Your task to perform on an android device: turn off smart reply in the gmail app Image 0: 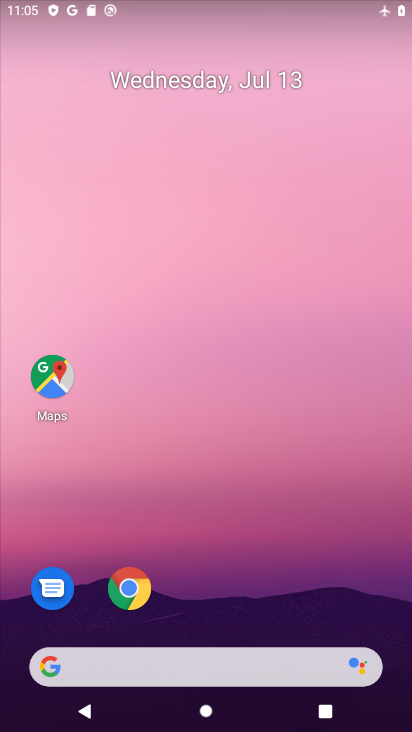
Step 0: drag from (223, 587) to (241, 181)
Your task to perform on an android device: turn off smart reply in the gmail app Image 1: 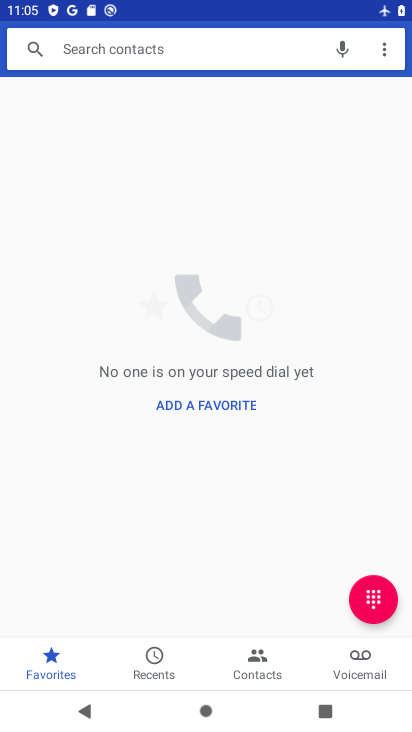
Step 1: press home button
Your task to perform on an android device: turn off smart reply in the gmail app Image 2: 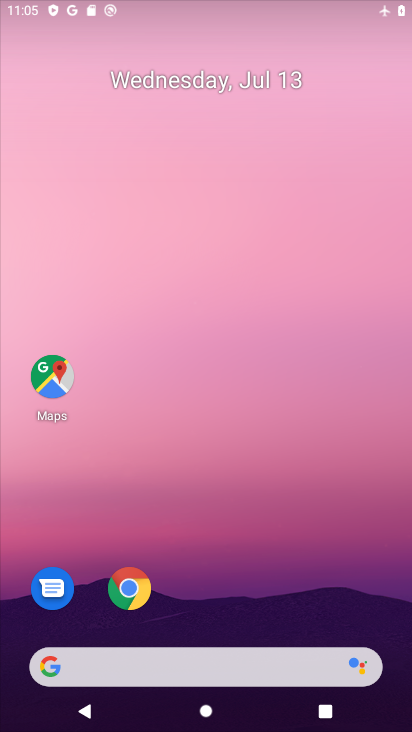
Step 2: drag from (256, 607) to (281, 0)
Your task to perform on an android device: turn off smart reply in the gmail app Image 3: 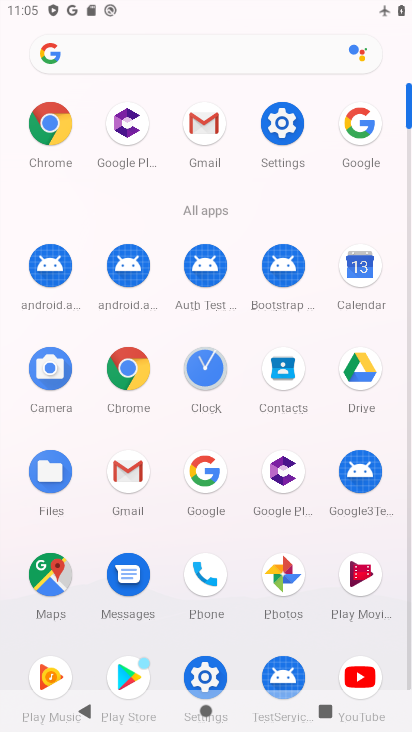
Step 3: click (199, 124)
Your task to perform on an android device: turn off smart reply in the gmail app Image 4: 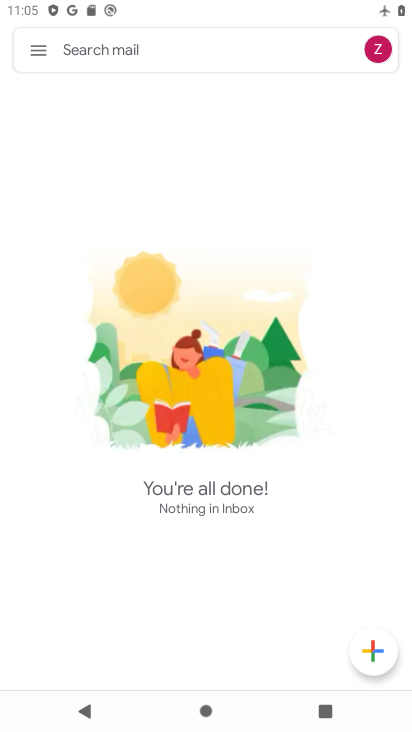
Step 4: click (40, 54)
Your task to perform on an android device: turn off smart reply in the gmail app Image 5: 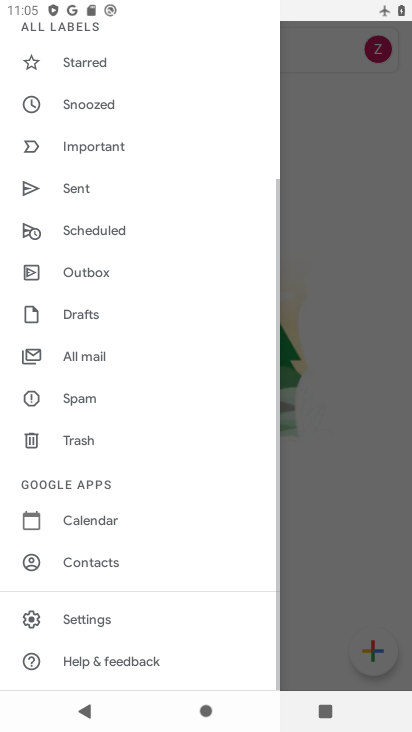
Step 5: click (88, 617)
Your task to perform on an android device: turn off smart reply in the gmail app Image 6: 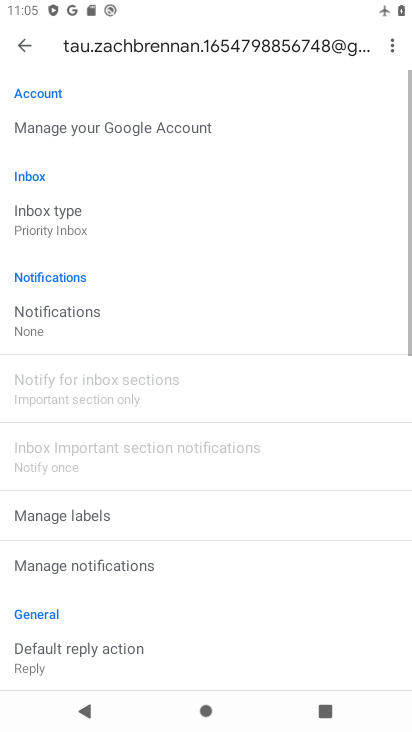
Step 6: drag from (164, 583) to (189, 133)
Your task to perform on an android device: turn off smart reply in the gmail app Image 7: 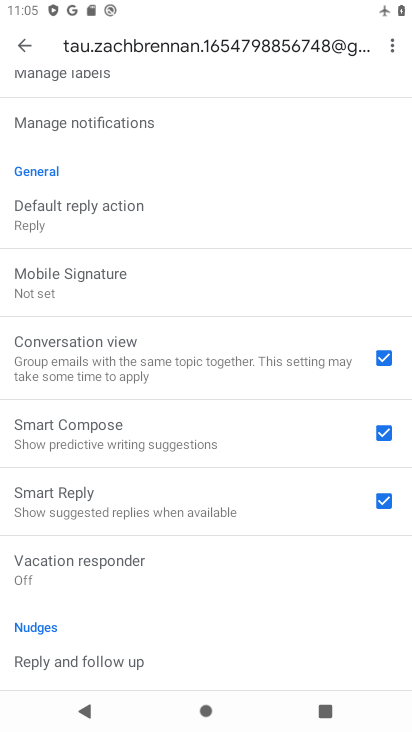
Step 7: click (383, 499)
Your task to perform on an android device: turn off smart reply in the gmail app Image 8: 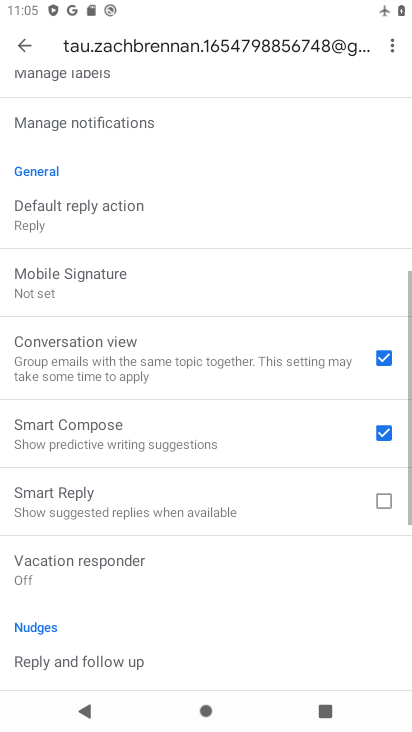
Step 8: task complete